Your task to perform on an android device: Turn on the flashlight Image 0: 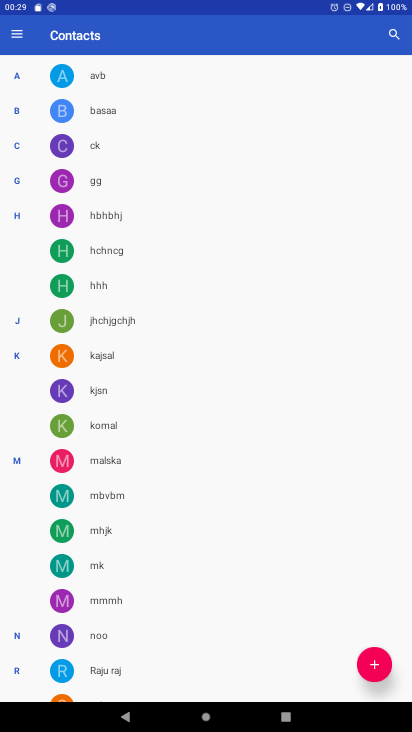
Step 0: press home button
Your task to perform on an android device: Turn on the flashlight Image 1: 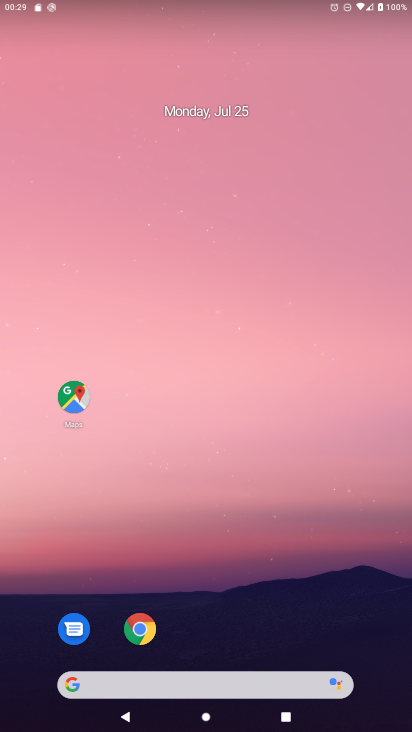
Step 1: drag from (212, 655) to (279, 73)
Your task to perform on an android device: Turn on the flashlight Image 2: 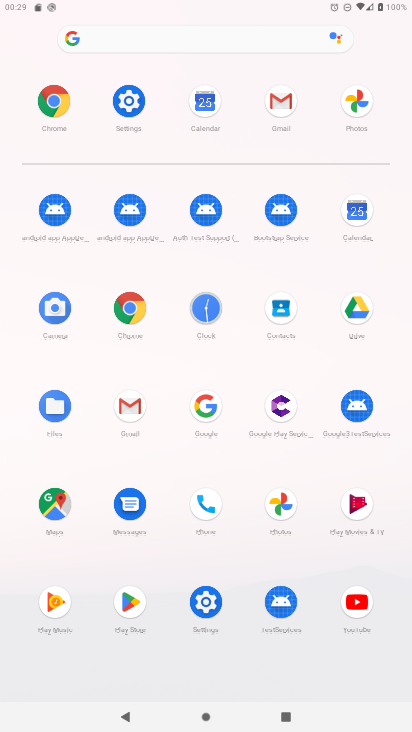
Step 2: click (124, 104)
Your task to perform on an android device: Turn on the flashlight Image 3: 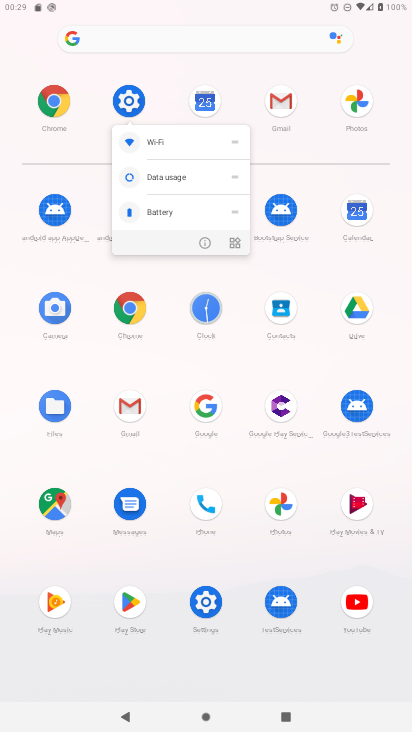
Step 3: click (205, 242)
Your task to perform on an android device: Turn on the flashlight Image 4: 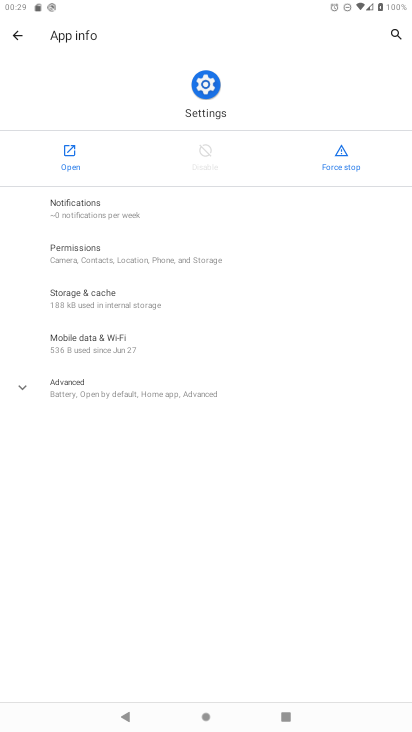
Step 4: click (70, 146)
Your task to perform on an android device: Turn on the flashlight Image 5: 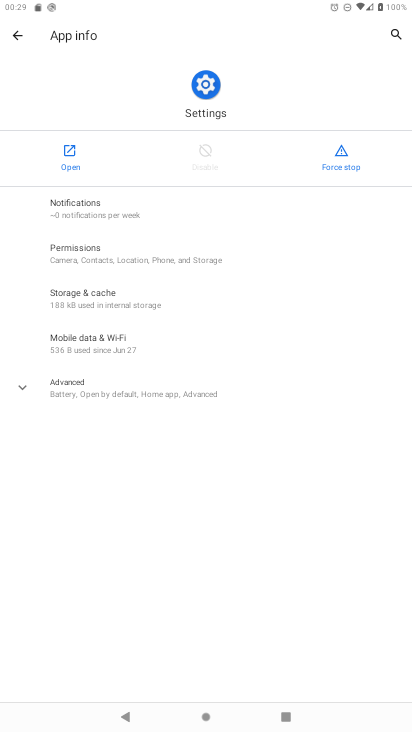
Step 5: click (70, 146)
Your task to perform on an android device: Turn on the flashlight Image 6: 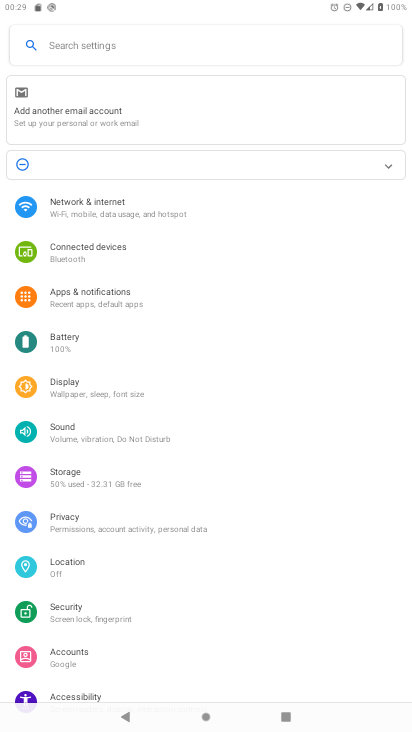
Step 6: click (115, 38)
Your task to perform on an android device: Turn on the flashlight Image 7: 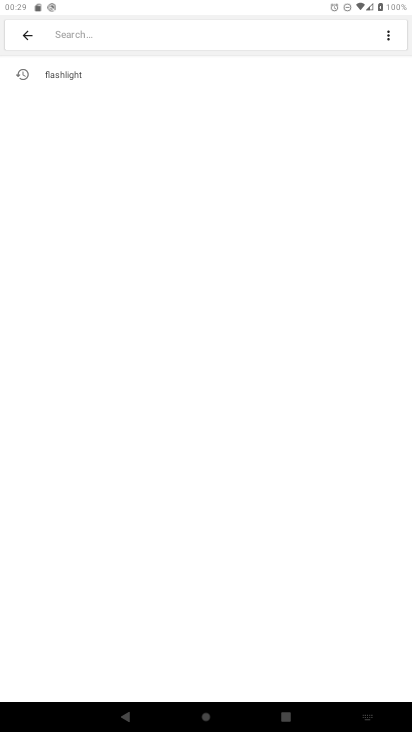
Step 7: click (51, 65)
Your task to perform on an android device: Turn on the flashlight Image 8: 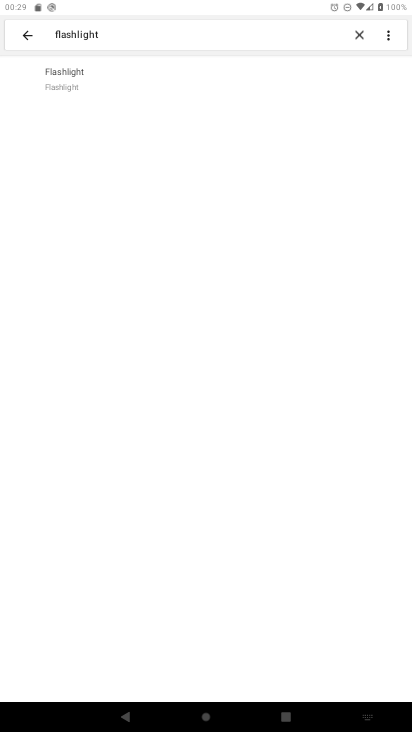
Step 8: click (88, 74)
Your task to perform on an android device: Turn on the flashlight Image 9: 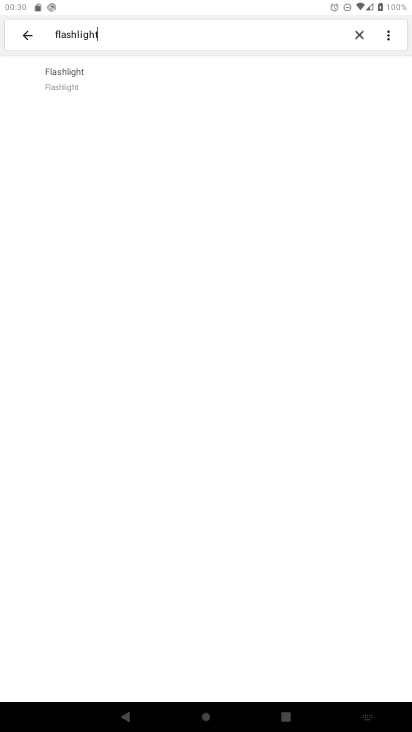
Step 9: click (120, 70)
Your task to perform on an android device: Turn on the flashlight Image 10: 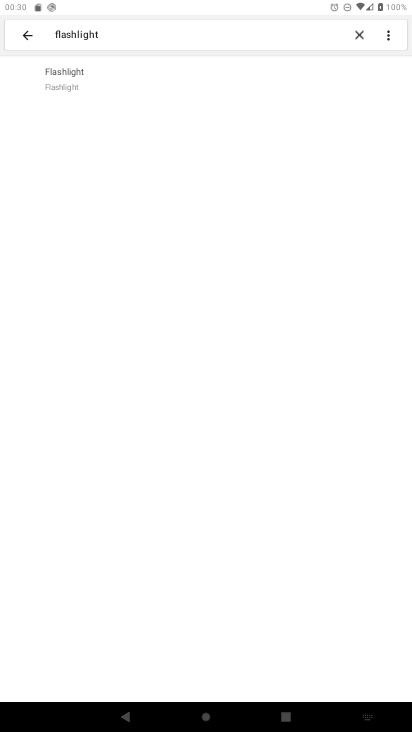
Step 10: click (120, 70)
Your task to perform on an android device: Turn on the flashlight Image 11: 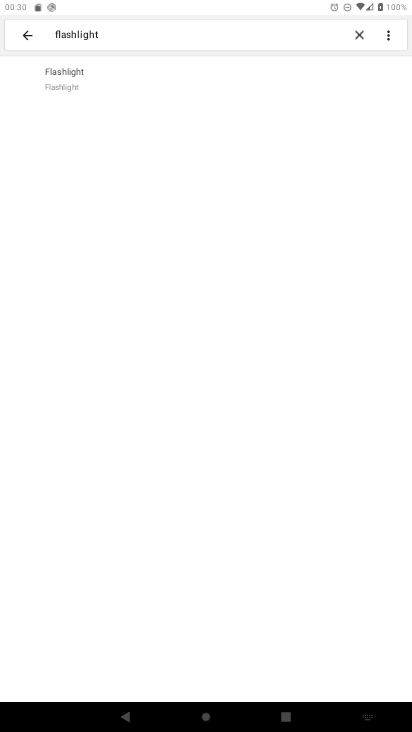
Step 11: click (116, 70)
Your task to perform on an android device: Turn on the flashlight Image 12: 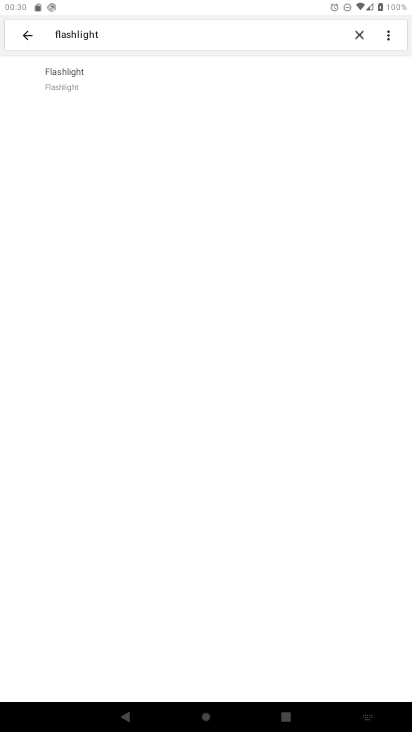
Step 12: task complete